Your task to perform on an android device: open app "Firefox Browser" (install if not already installed), go to login, and select forgot password Image 0: 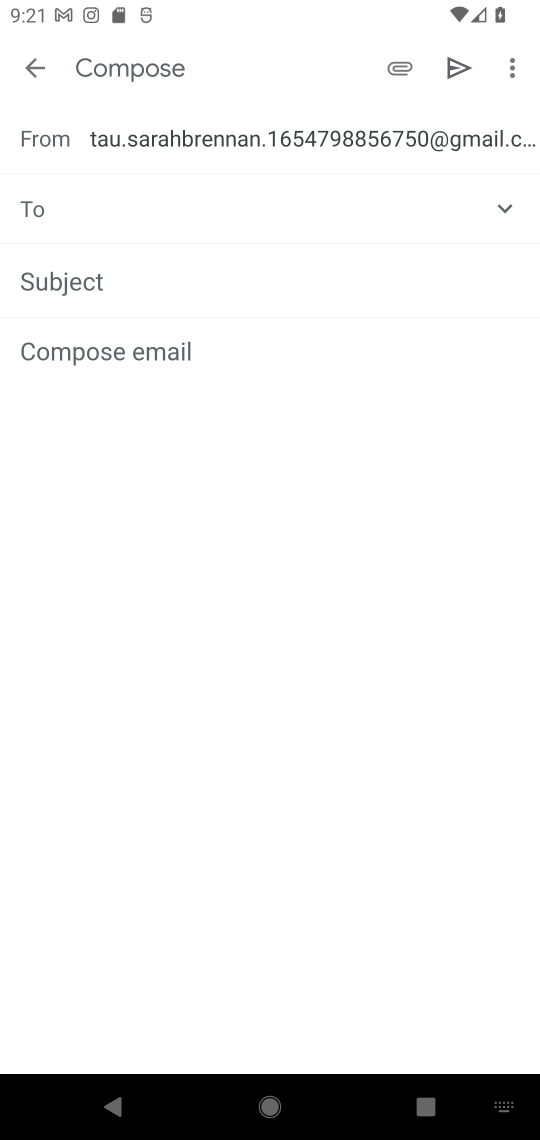
Step 0: press home button
Your task to perform on an android device: open app "Firefox Browser" (install if not already installed), go to login, and select forgot password Image 1: 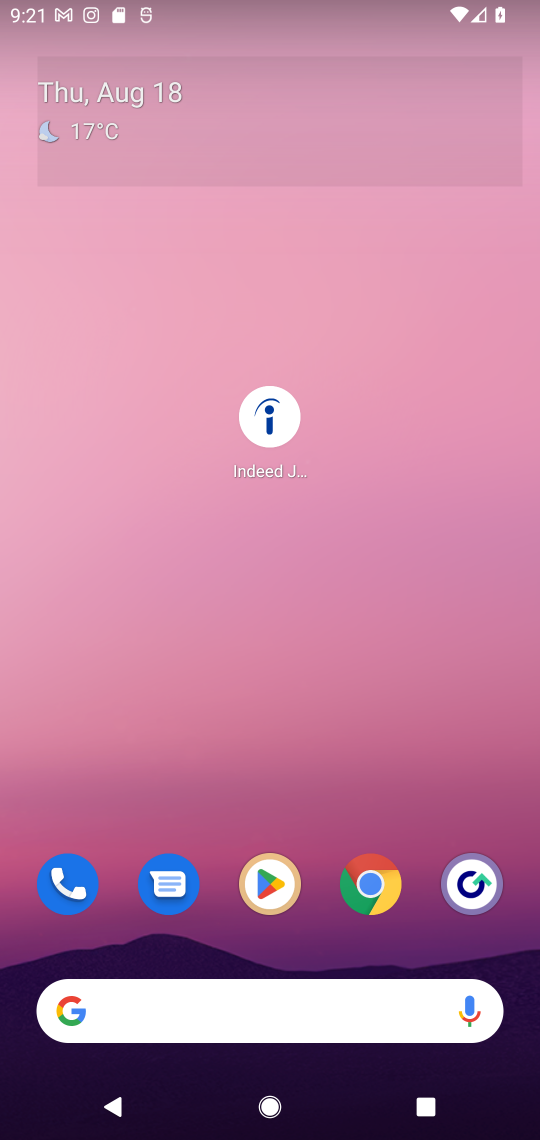
Step 1: drag from (176, 1012) to (291, 97)
Your task to perform on an android device: open app "Firefox Browser" (install if not already installed), go to login, and select forgot password Image 2: 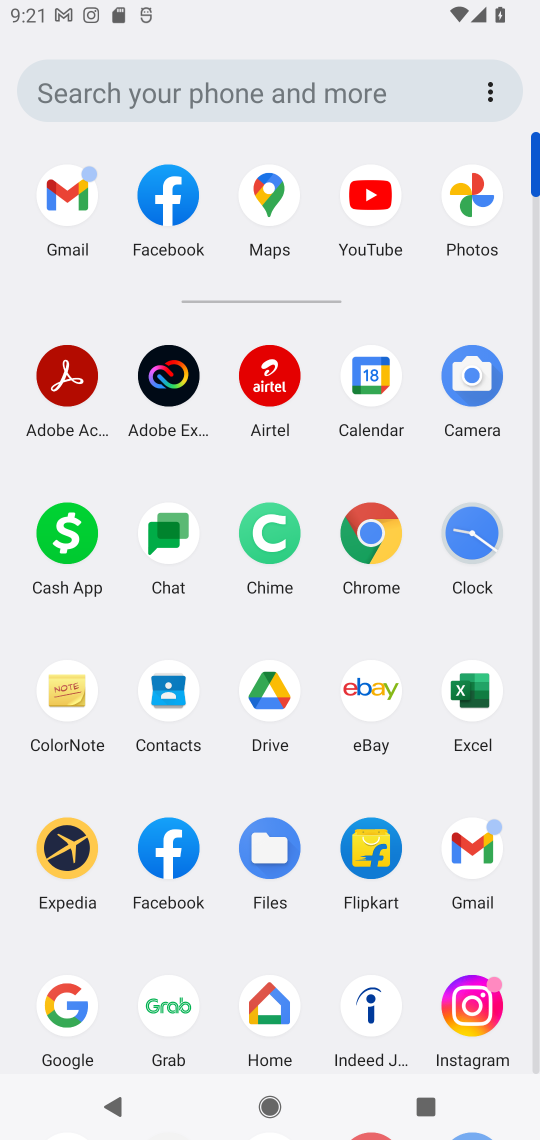
Step 2: drag from (199, 968) to (259, 183)
Your task to perform on an android device: open app "Firefox Browser" (install if not already installed), go to login, and select forgot password Image 3: 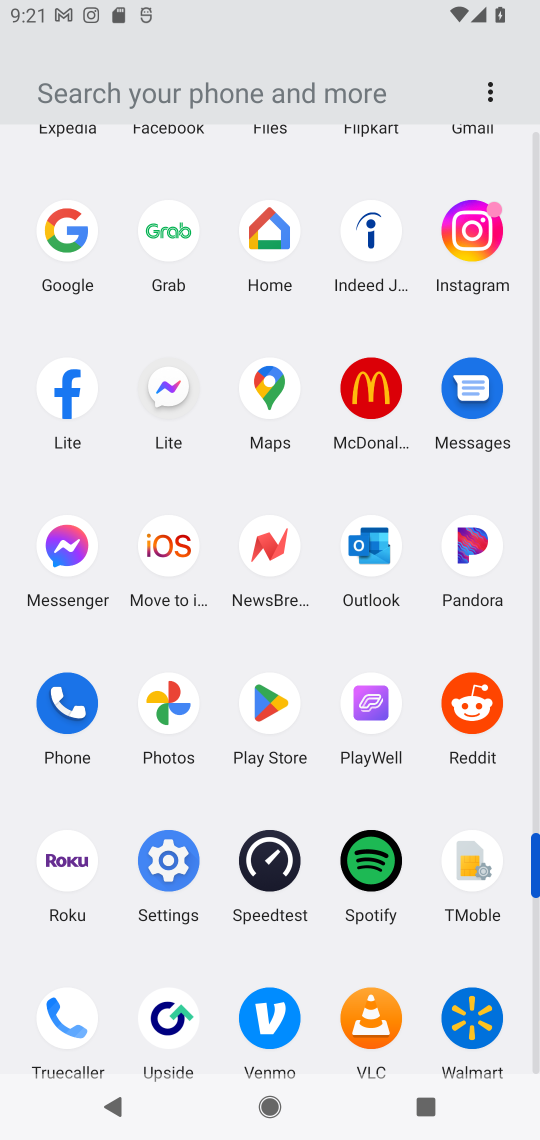
Step 3: click (271, 701)
Your task to perform on an android device: open app "Firefox Browser" (install if not already installed), go to login, and select forgot password Image 4: 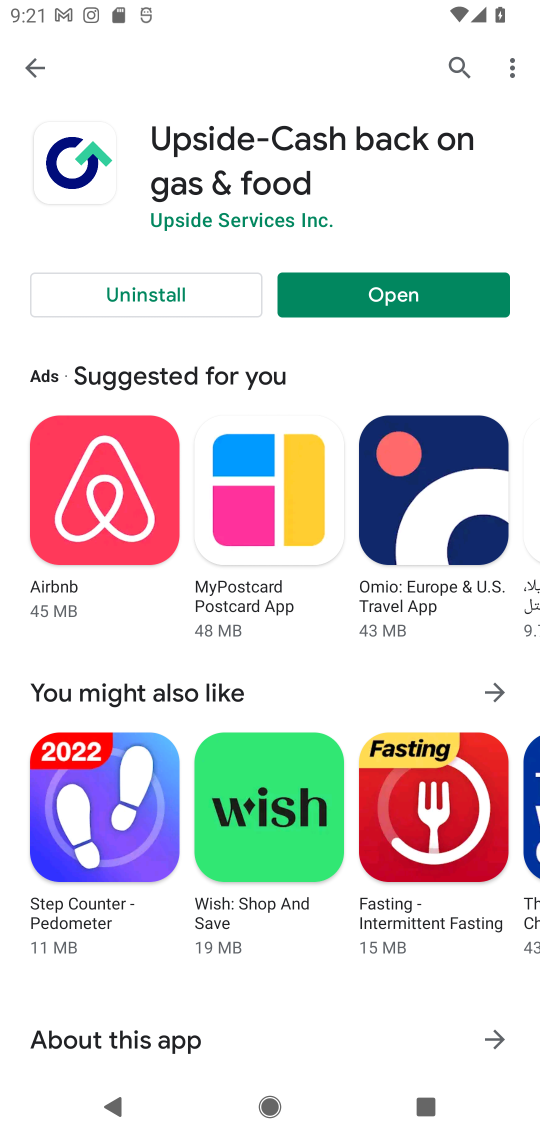
Step 4: press back button
Your task to perform on an android device: open app "Firefox Browser" (install if not already installed), go to login, and select forgot password Image 5: 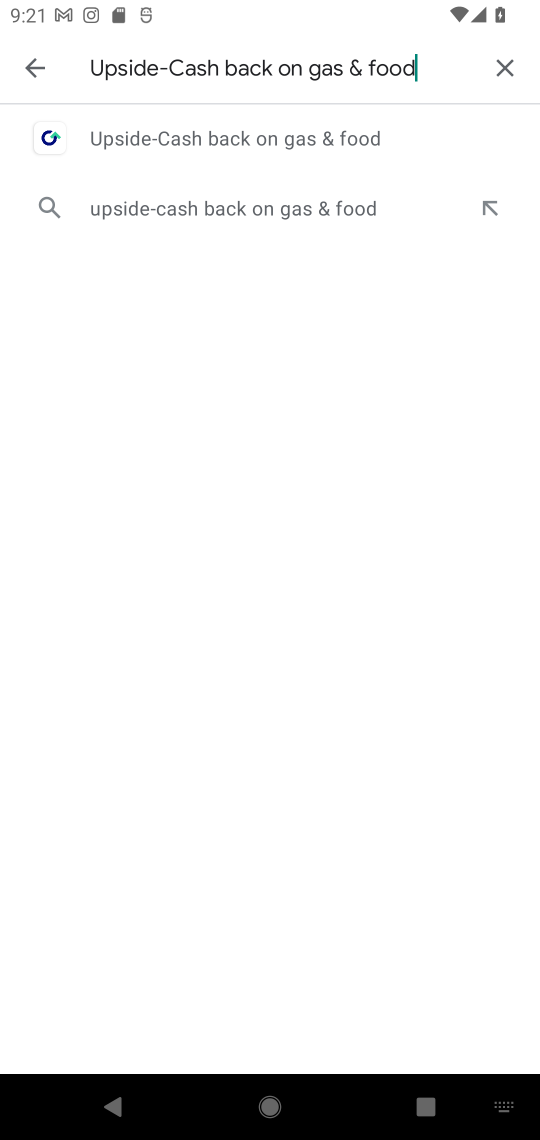
Step 5: press back button
Your task to perform on an android device: open app "Firefox Browser" (install if not already installed), go to login, and select forgot password Image 6: 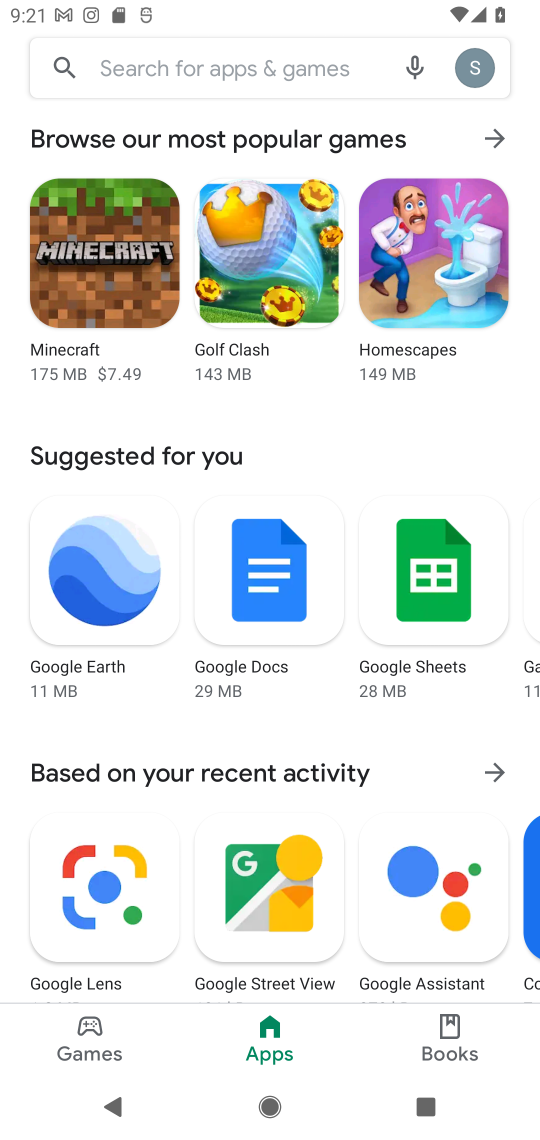
Step 6: click (258, 65)
Your task to perform on an android device: open app "Firefox Browser" (install if not already installed), go to login, and select forgot password Image 7: 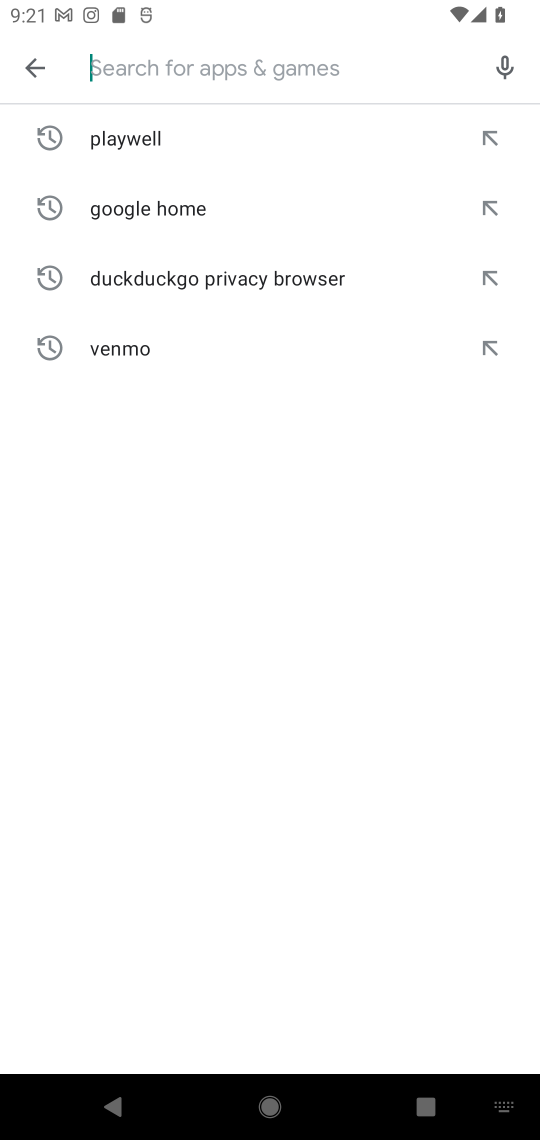
Step 7: type "Firefox Browser"
Your task to perform on an android device: open app "Firefox Browser" (install if not already installed), go to login, and select forgot password Image 8: 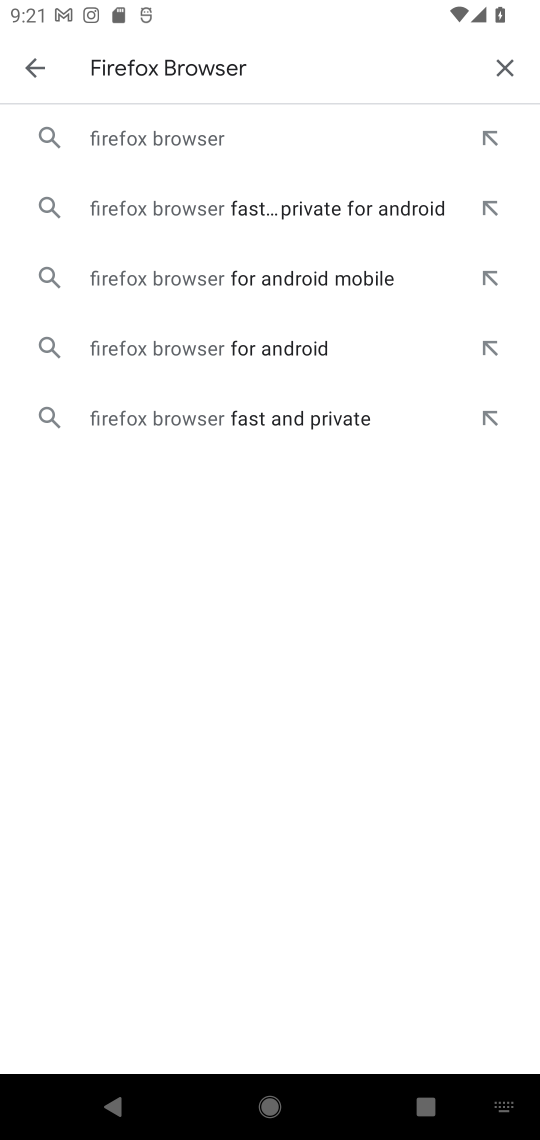
Step 8: click (131, 143)
Your task to perform on an android device: open app "Firefox Browser" (install if not already installed), go to login, and select forgot password Image 9: 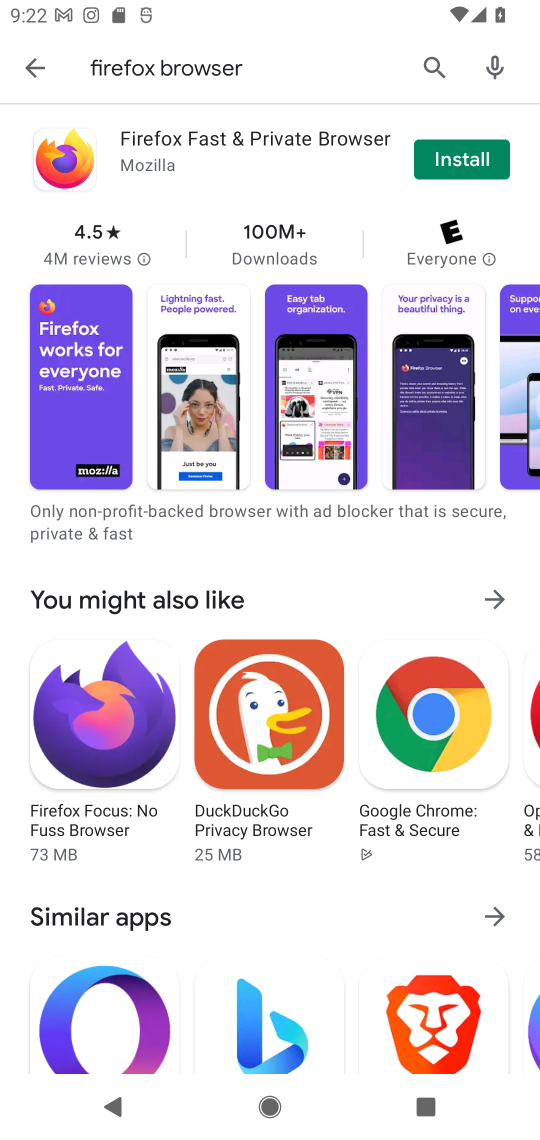
Step 9: click (465, 161)
Your task to perform on an android device: open app "Firefox Browser" (install if not already installed), go to login, and select forgot password Image 10: 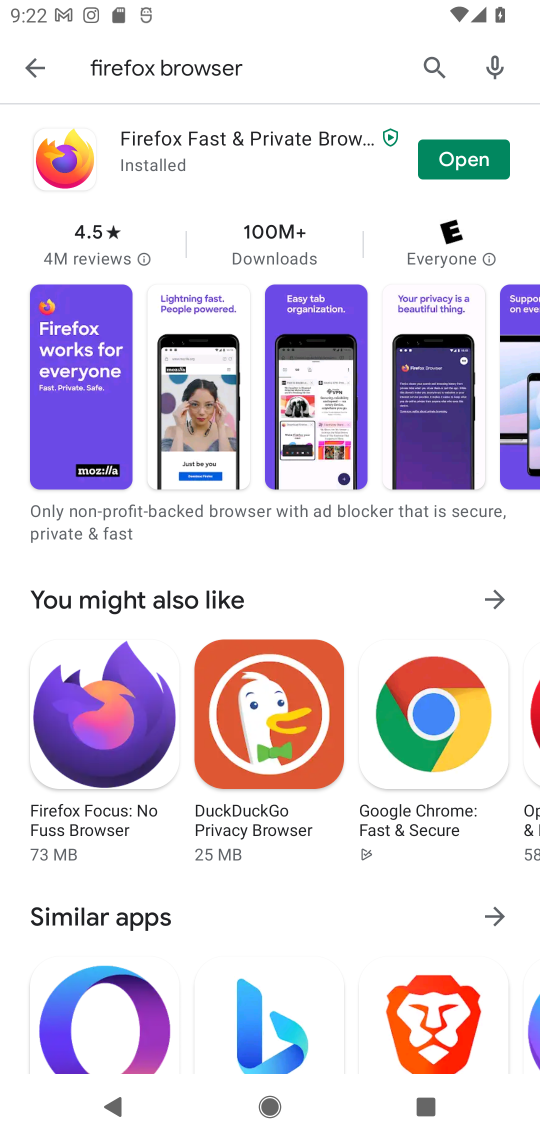
Step 10: click (455, 169)
Your task to perform on an android device: open app "Firefox Browser" (install if not already installed), go to login, and select forgot password Image 11: 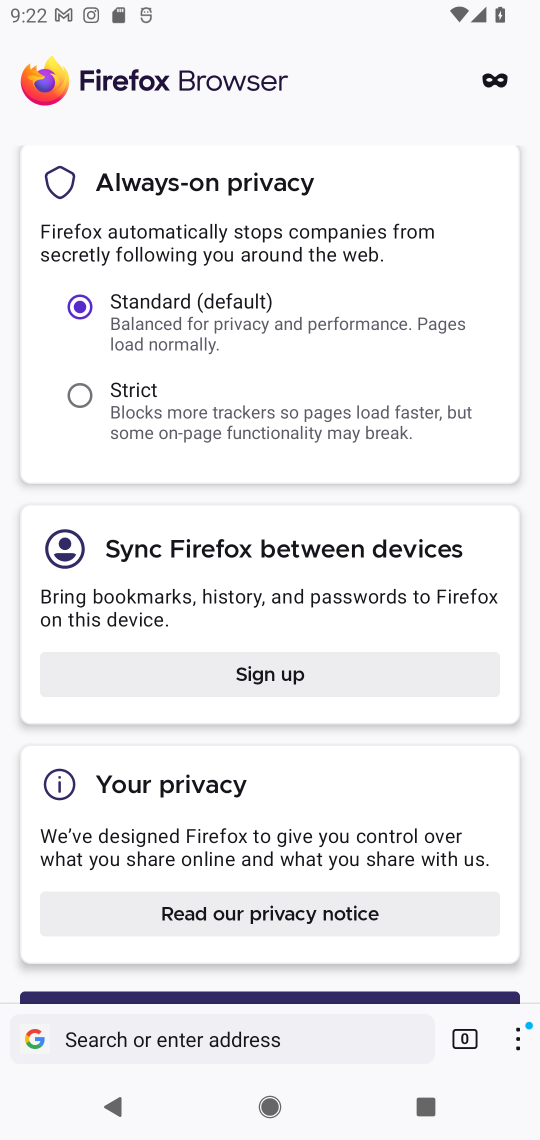
Step 11: click (273, 668)
Your task to perform on an android device: open app "Firefox Browser" (install if not already installed), go to login, and select forgot password Image 12: 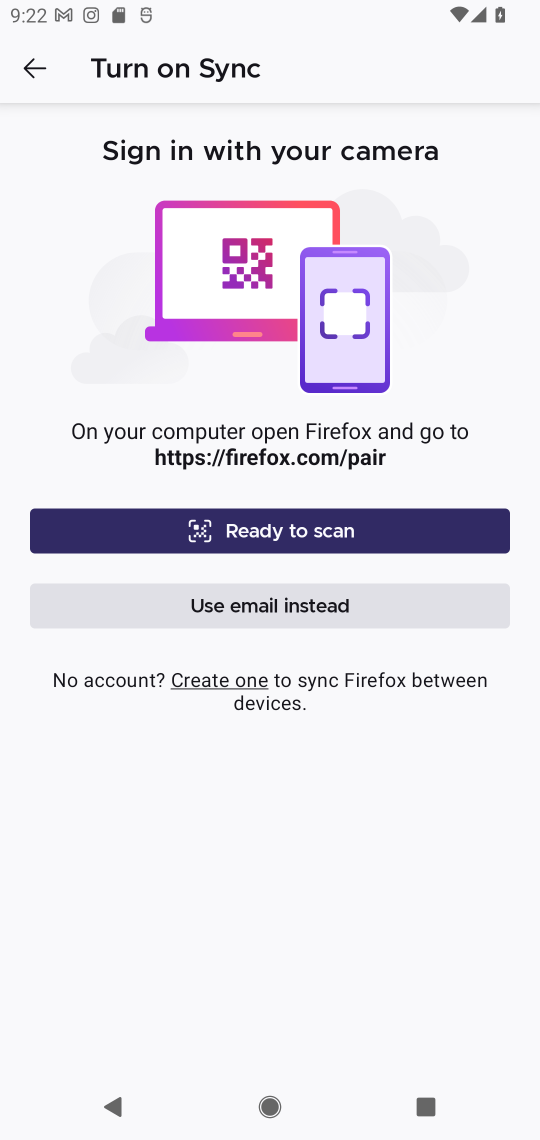
Step 12: click (282, 607)
Your task to perform on an android device: open app "Firefox Browser" (install if not already installed), go to login, and select forgot password Image 13: 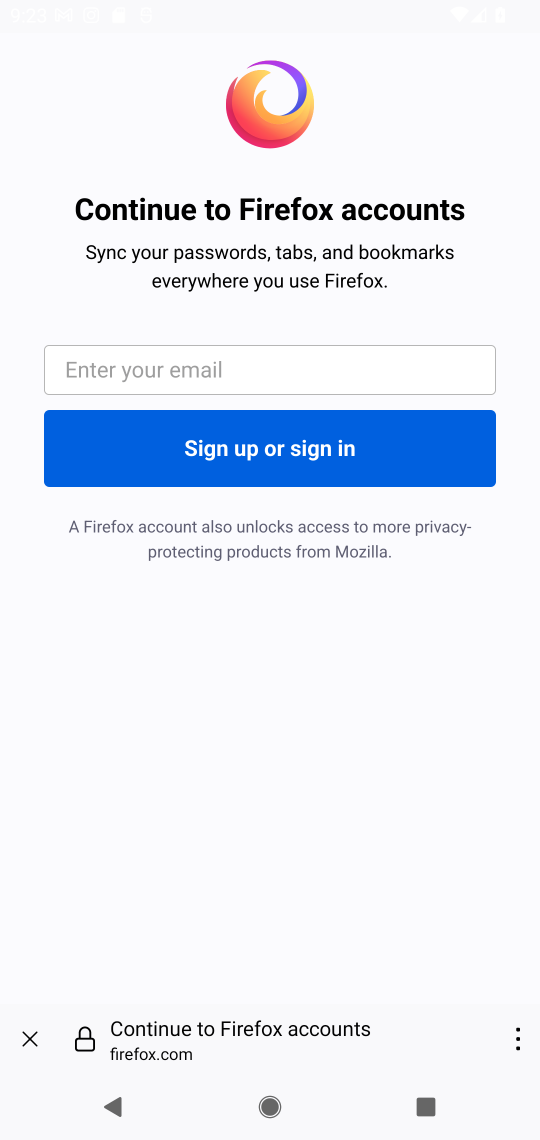
Step 13: press back button
Your task to perform on an android device: open app "Firefox Browser" (install if not already installed), go to login, and select forgot password Image 14: 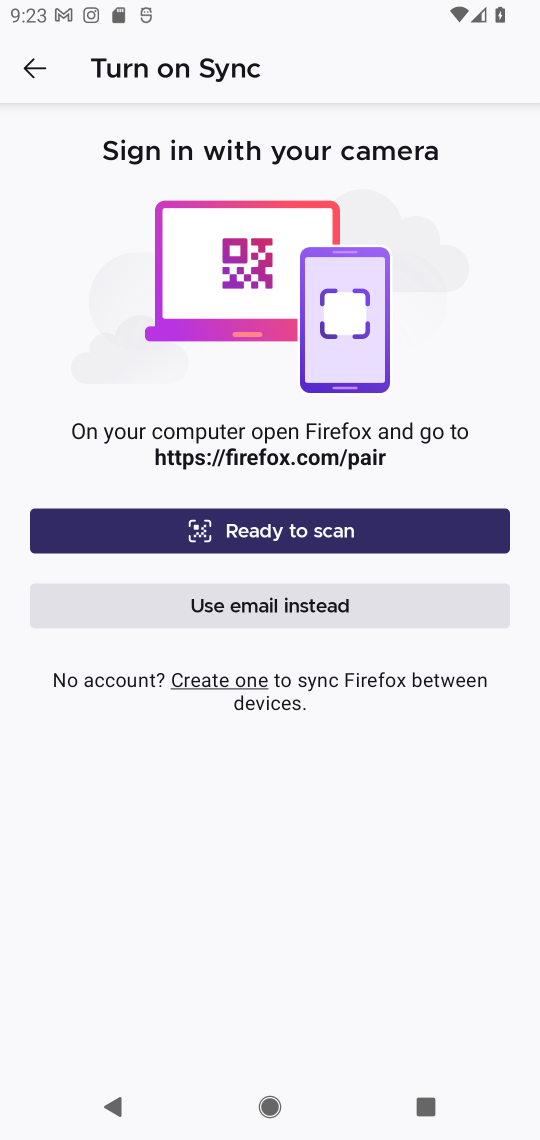
Step 14: click (341, 540)
Your task to perform on an android device: open app "Firefox Browser" (install if not already installed), go to login, and select forgot password Image 15: 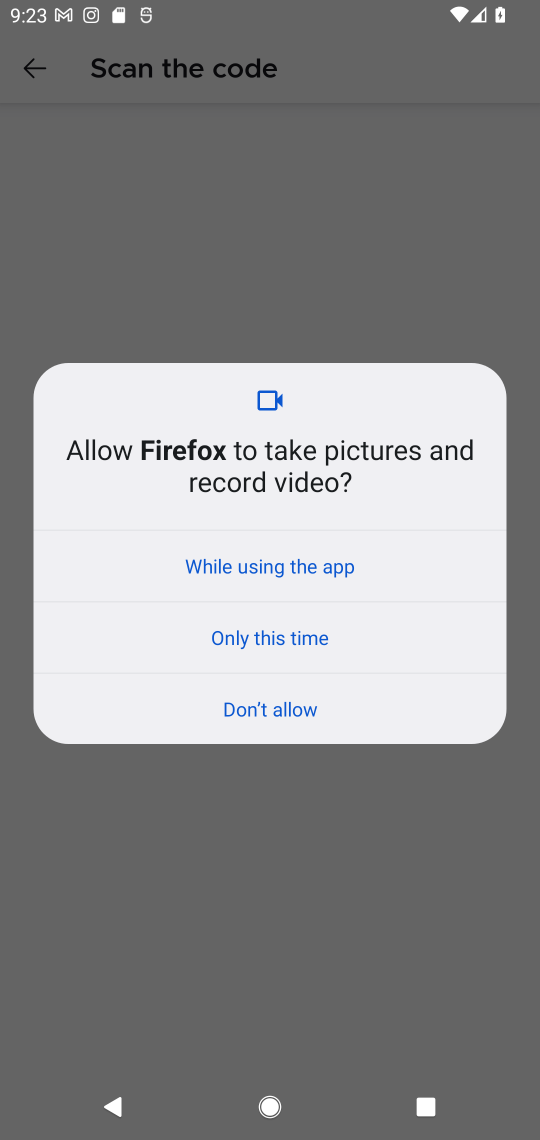
Step 15: click (330, 557)
Your task to perform on an android device: open app "Firefox Browser" (install if not already installed), go to login, and select forgot password Image 16: 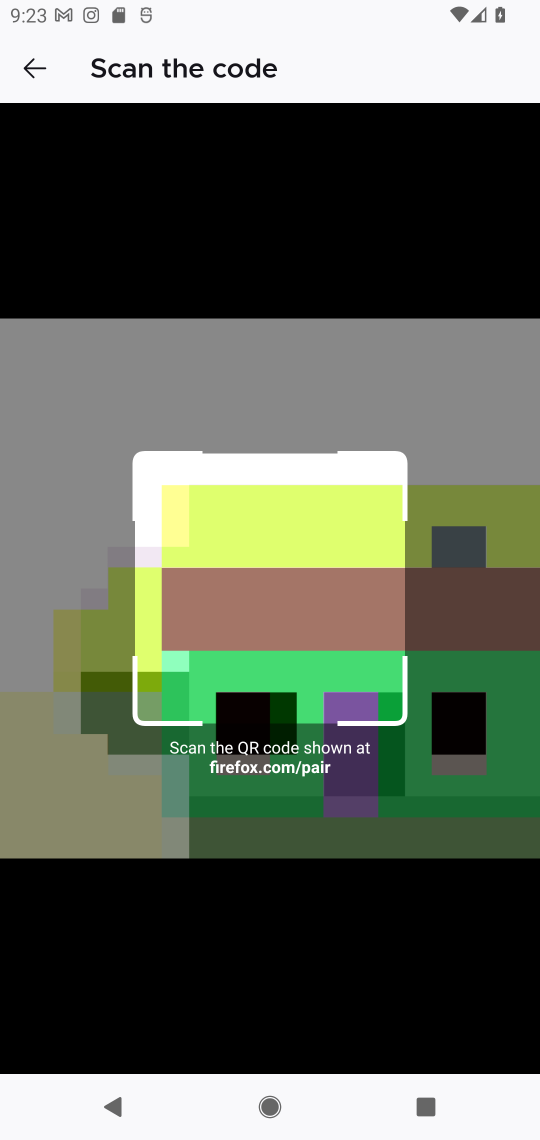
Step 16: press back button
Your task to perform on an android device: open app "Firefox Browser" (install if not already installed), go to login, and select forgot password Image 17: 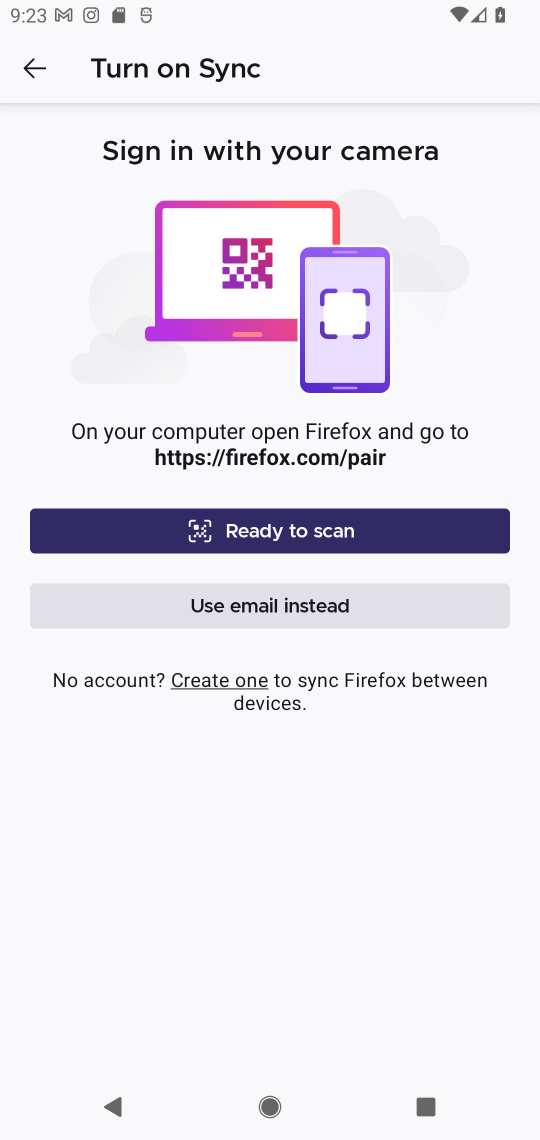
Step 17: press back button
Your task to perform on an android device: open app "Firefox Browser" (install if not already installed), go to login, and select forgot password Image 18: 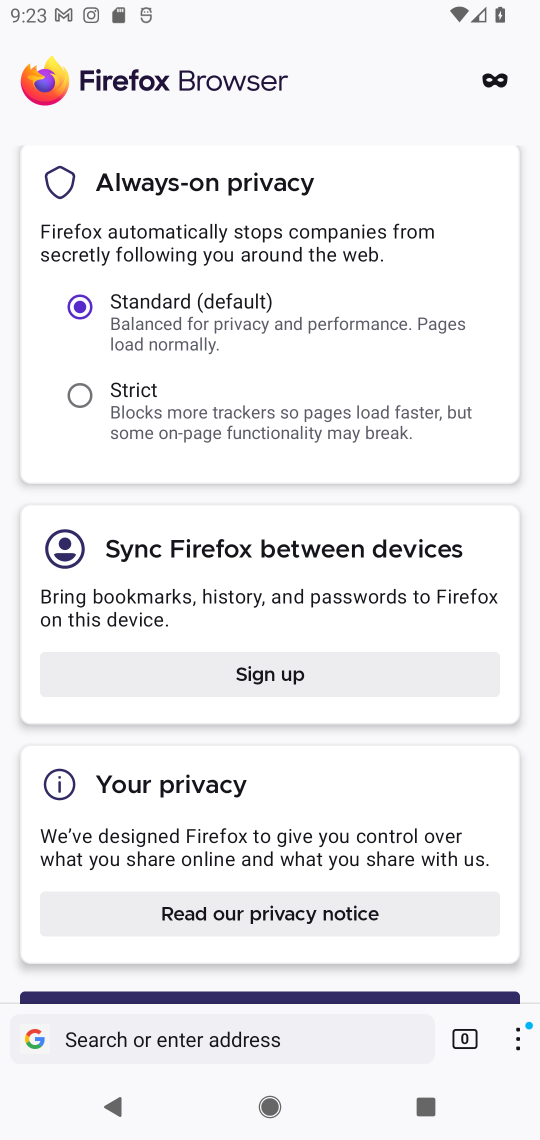
Step 18: drag from (246, 829) to (367, 640)
Your task to perform on an android device: open app "Firefox Browser" (install if not already installed), go to login, and select forgot password Image 19: 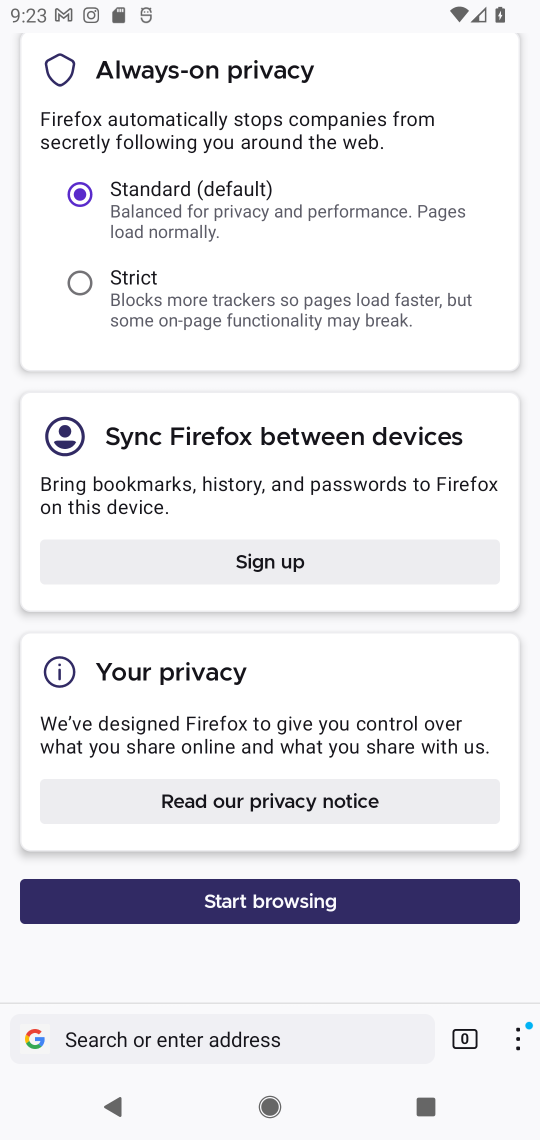
Step 19: click (306, 921)
Your task to perform on an android device: open app "Firefox Browser" (install if not already installed), go to login, and select forgot password Image 20: 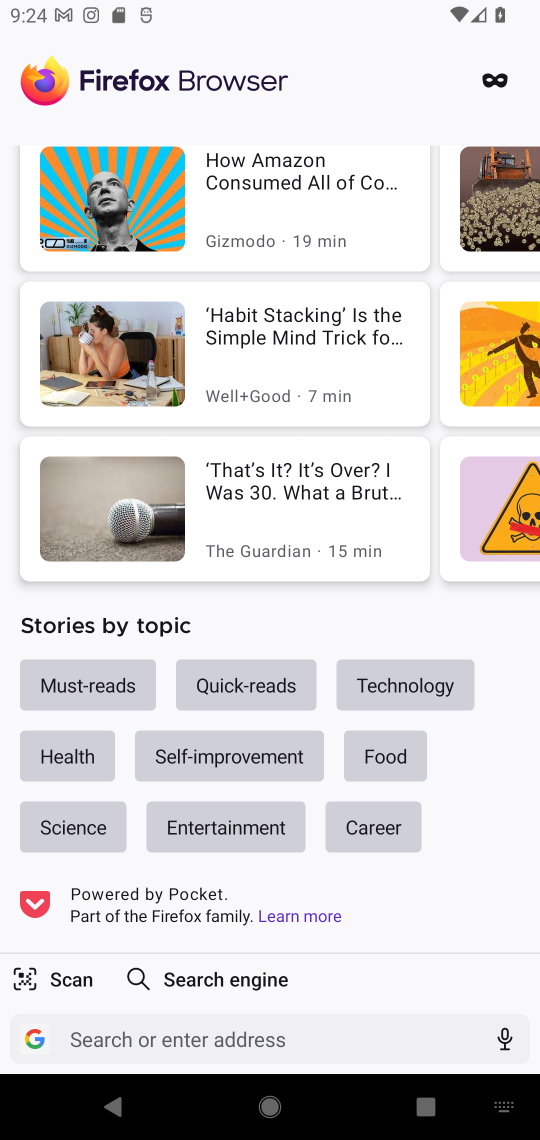
Step 20: task complete